Your task to perform on an android device: Empty the shopping cart on walmart.com. Add duracell triple a to the cart on walmart.com, then select checkout. Image 0: 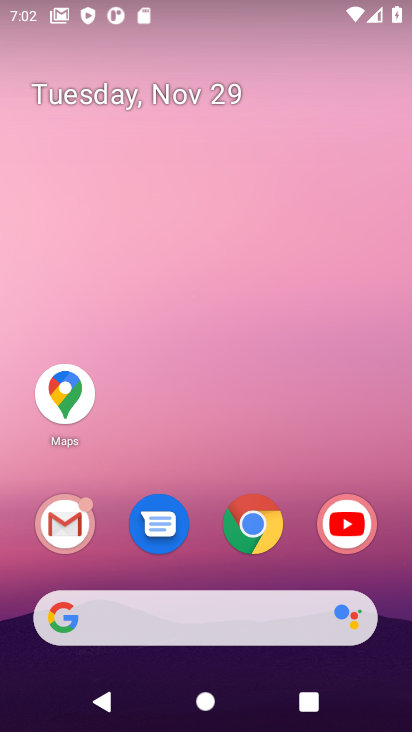
Step 0: click (254, 529)
Your task to perform on an android device: Empty the shopping cart on walmart.com. Add duracell triple a to the cart on walmart.com, then select checkout. Image 1: 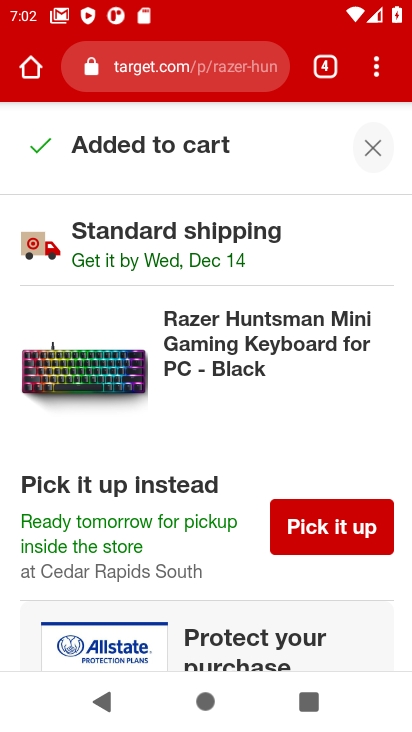
Step 1: click (144, 67)
Your task to perform on an android device: Empty the shopping cart on walmart.com. Add duracell triple a to the cart on walmart.com, then select checkout. Image 2: 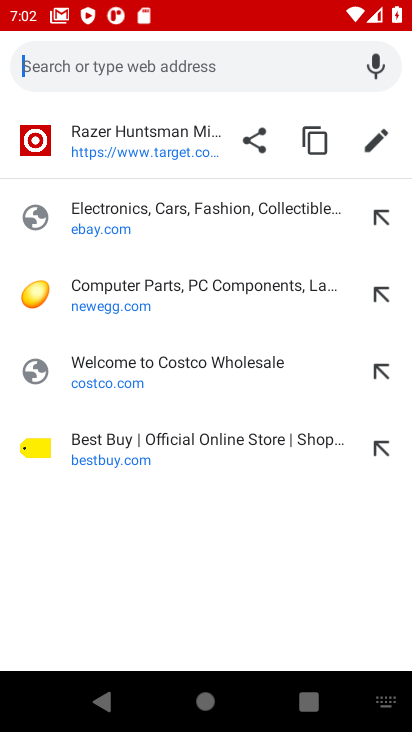
Step 2: type "walmart.com"
Your task to perform on an android device: Empty the shopping cart on walmart.com. Add duracell triple a to the cart on walmart.com, then select checkout. Image 3: 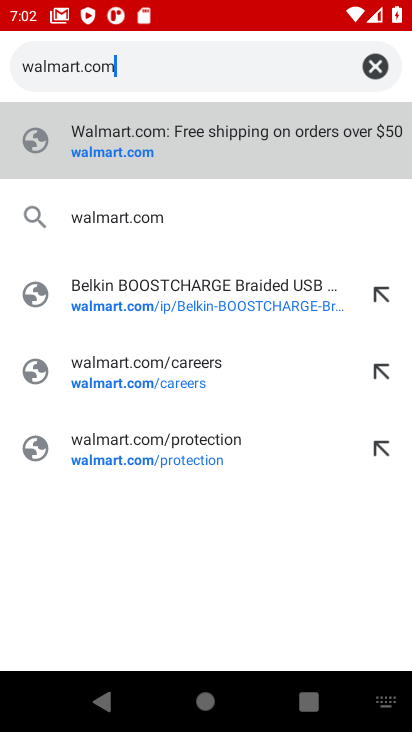
Step 3: click (84, 153)
Your task to perform on an android device: Empty the shopping cart on walmart.com. Add duracell triple a to the cart on walmart.com, then select checkout. Image 4: 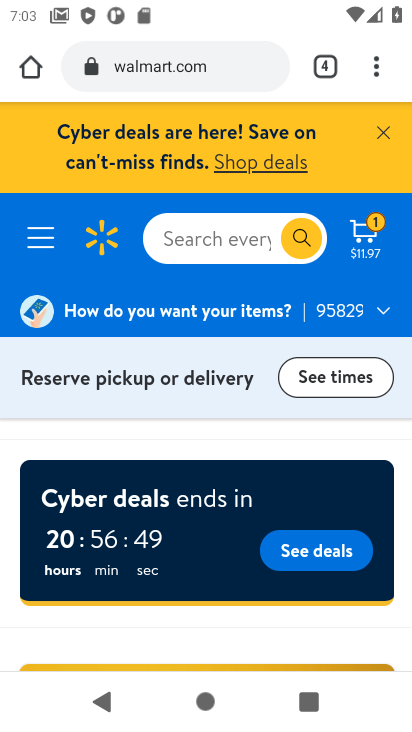
Step 4: click (358, 241)
Your task to perform on an android device: Empty the shopping cart on walmart.com. Add duracell triple a to the cart on walmart.com, then select checkout. Image 5: 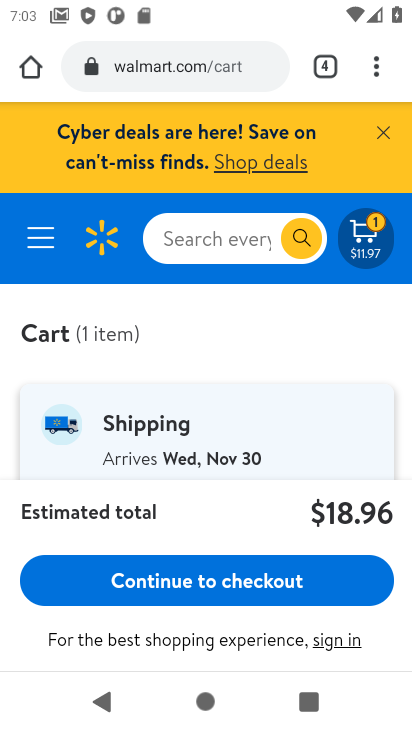
Step 5: drag from (195, 490) to (196, 195)
Your task to perform on an android device: Empty the shopping cart on walmart.com. Add duracell triple a to the cart on walmart.com, then select checkout. Image 6: 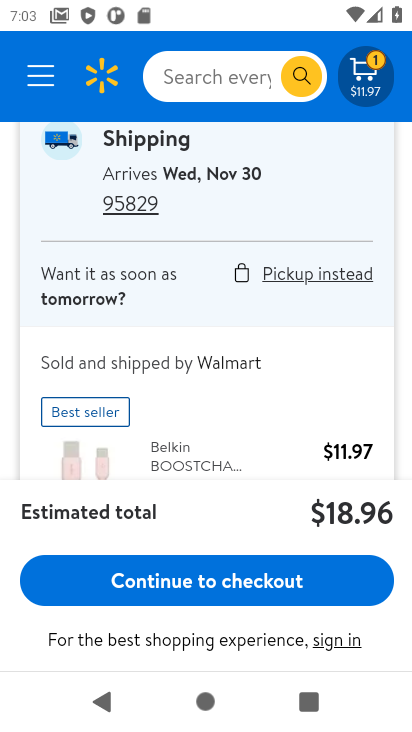
Step 6: drag from (194, 363) to (184, 118)
Your task to perform on an android device: Empty the shopping cart on walmart.com. Add duracell triple a to the cart on walmart.com, then select checkout. Image 7: 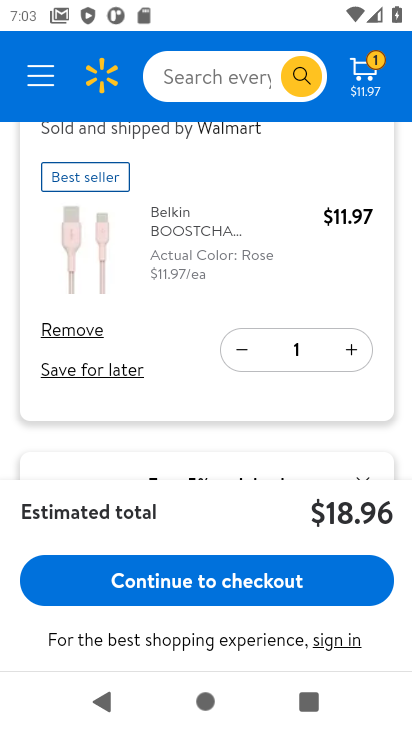
Step 7: click (67, 332)
Your task to perform on an android device: Empty the shopping cart on walmart.com. Add duracell triple a to the cart on walmart.com, then select checkout. Image 8: 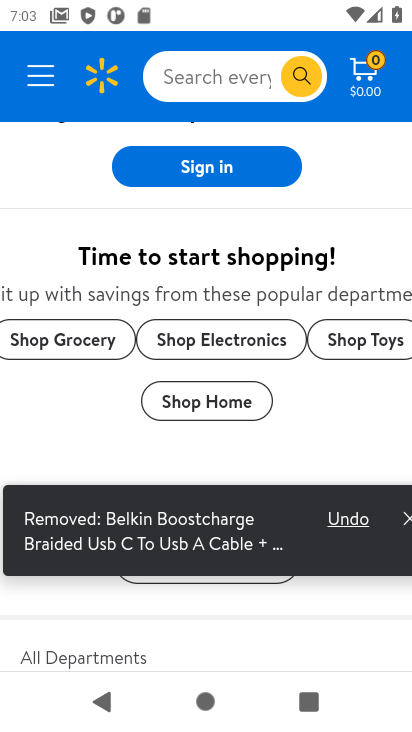
Step 8: drag from (302, 237) to (289, 355)
Your task to perform on an android device: Empty the shopping cart on walmart.com. Add duracell triple a to the cart on walmart.com, then select checkout. Image 9: 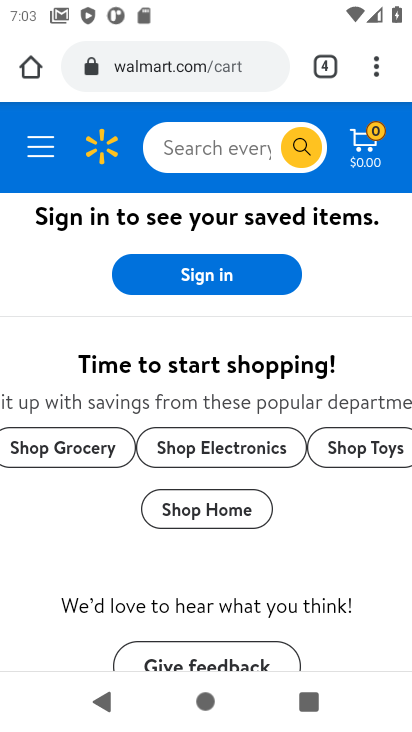
Step 9: click (177, 144)
Your task to perform on an android device: Empty the shopping cart on walmart.com. Add duracell triple a to the cart on walmart.com, then select checkout. Image 10: 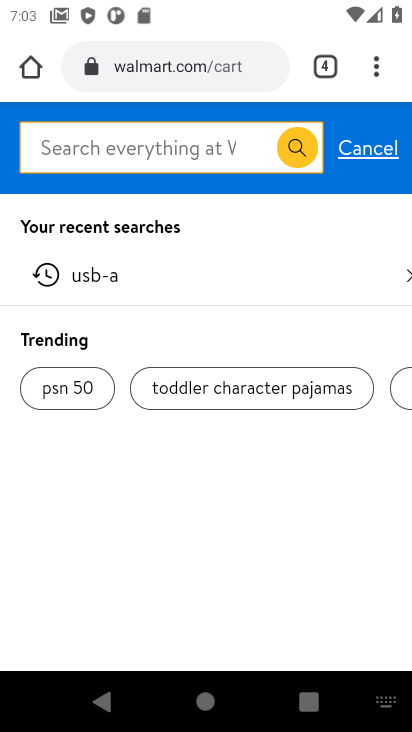
Step 10: type "duracell triple a"
Your task to perform on an android device: Empty the shopping cart on walmart.com. Add duracell triple a to the cart on walmart.com, then select checkout. Image 11: 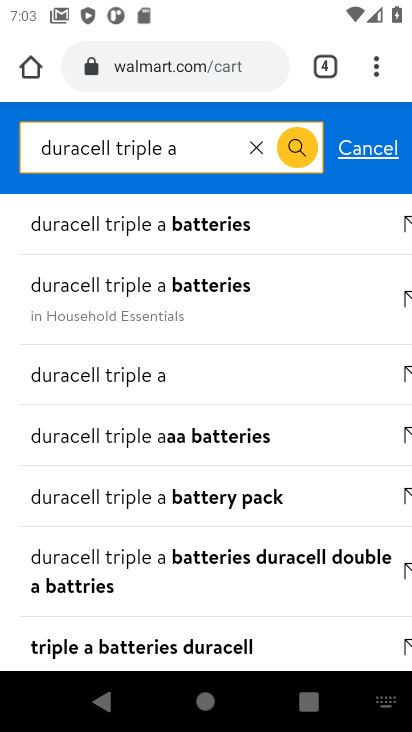
Step 11: click (116, 230)
Your task to perform on an android device: Empty the shopping cart on walmart.com. Add duracell triple a to the cart on walmart.com, then select checkout. Image 12: 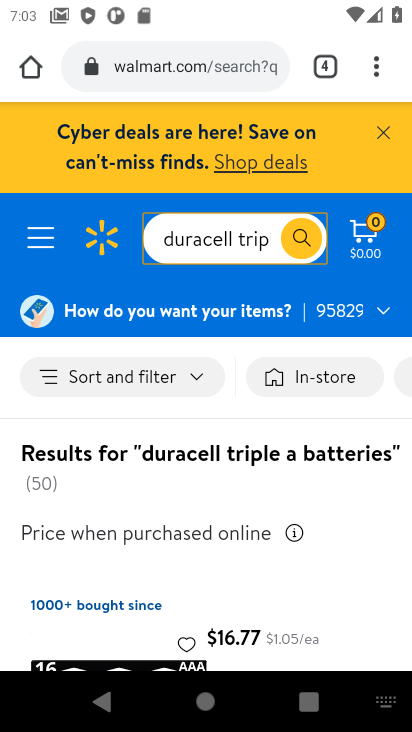
Step 12: drag from (182, 490) to (147, 209)
Your task to perform on an android device: Empty the shopping cart on walmart.com. Add duracell triple a to the cart on walmart.com, then select checkout. Image 13: 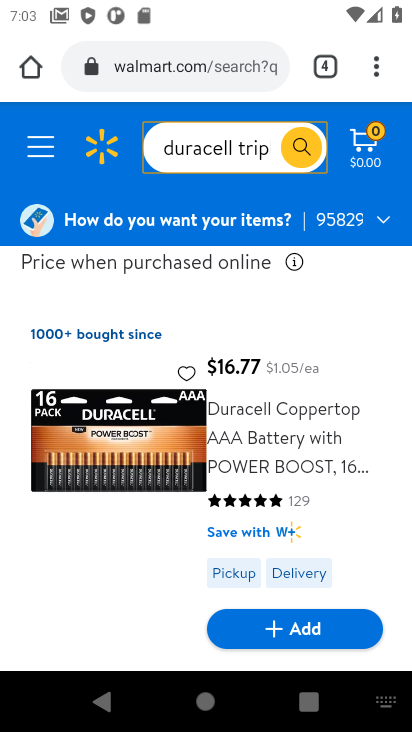
Step 13: click (302, 627)
Your task to perform on an android device: Empty the shopping cart on walmart.com. Add duracell triple a to the cart on walmart.com, then select checkout. Image 14: 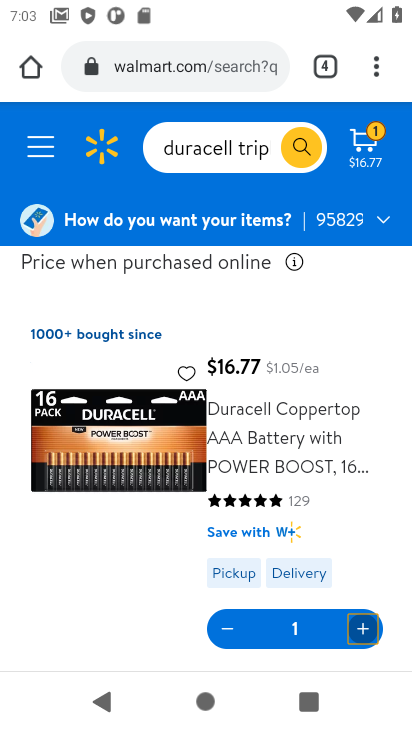
Step 14: click (360, 141)
Your task to perform on an android device: Empty the shopping cart on walmart.com. Add duracell triple a to the cart on walmart.com, then select checkout. Image 15: 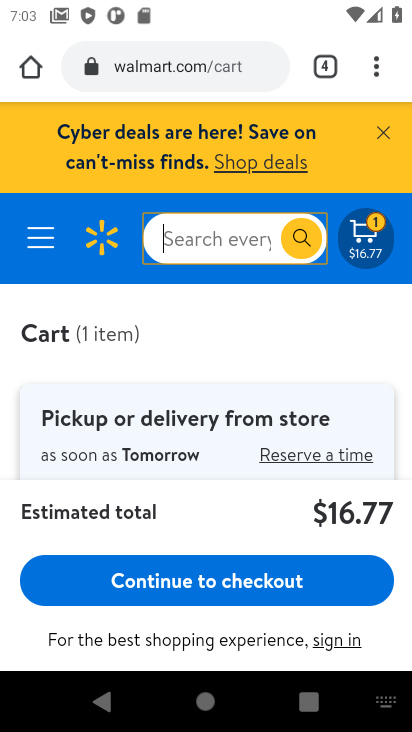
Step 15: click (190, 581)
Your task to perform on an android device: Empty the shopping cart on walmart.com. Add duracell triple a to the cart on walmart.com, then select checkout. Image 16: 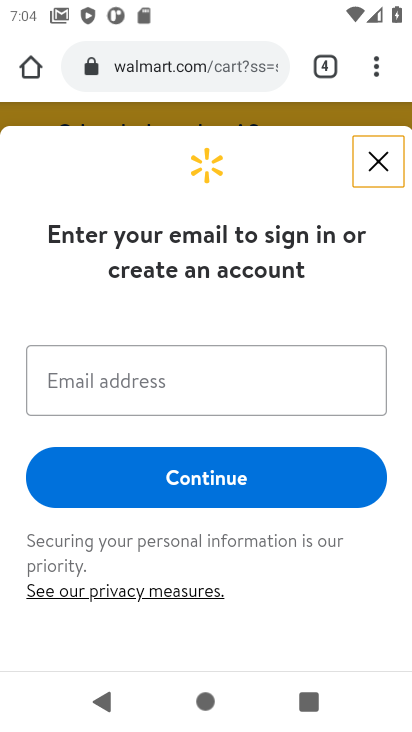
Step 16: task complete